Your task to perform on an android device: check google app version Image 0: 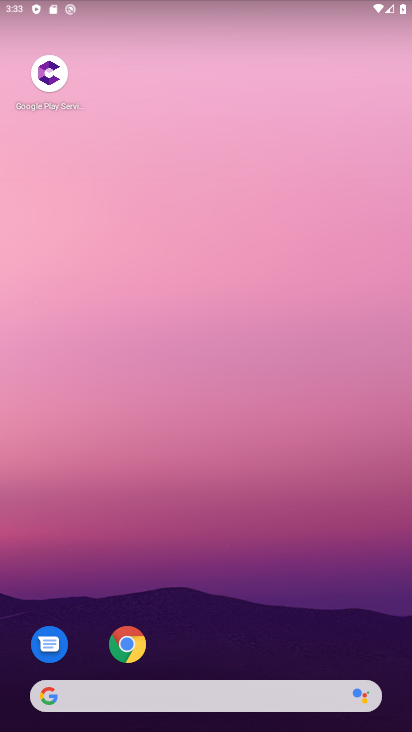
Step 0: drag from (217, 616) to (285, 99)
Your task to perform on an android device: check google app version Image 1: 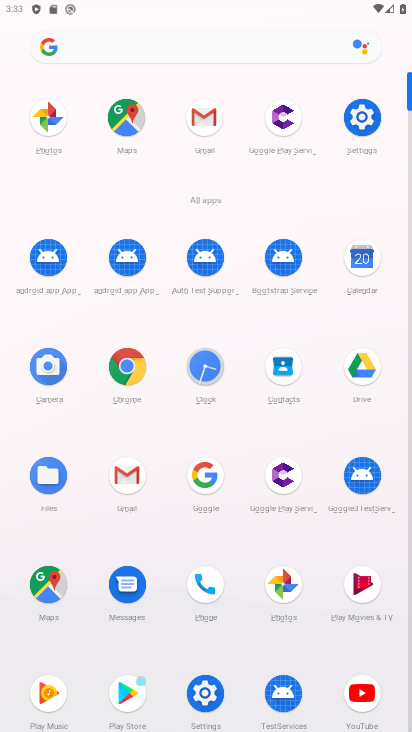
Step 1: click (194, 475)
Your task to perform on an android device: check google app version Image 2: 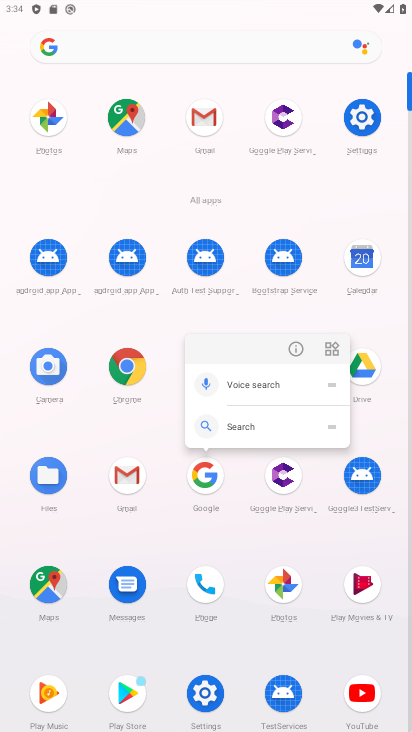
Step 2: click (296, 339)
Your task to perform on an android device: check google app version Image 3: 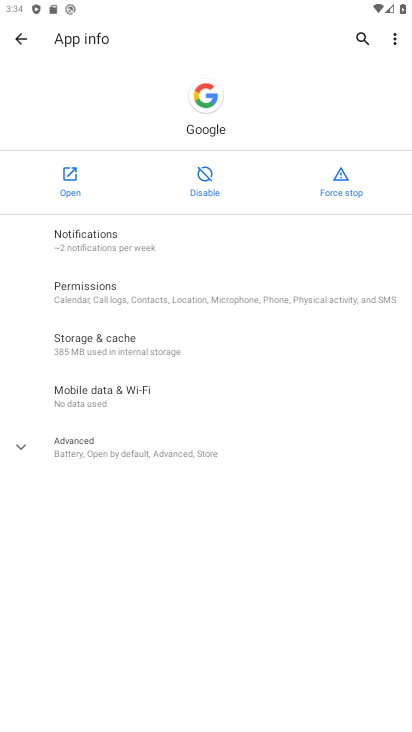
Step 3: click (132, 446)
Your task to perform on an android device: check google app version Image 4: 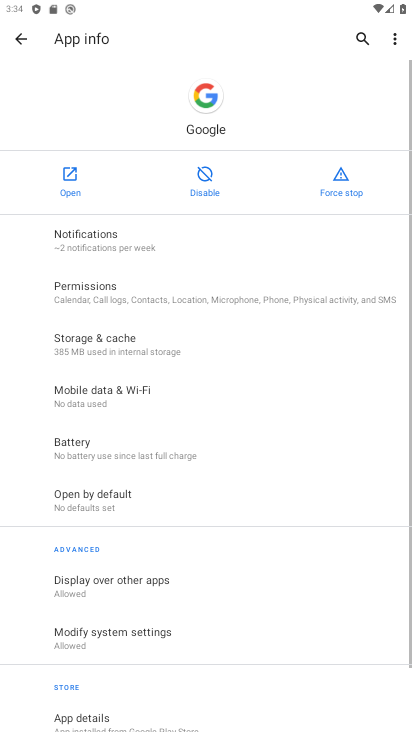
Step 4: task complete